Your task to perform on an android device: allow notifications from all sites in the chrome app Image 0: 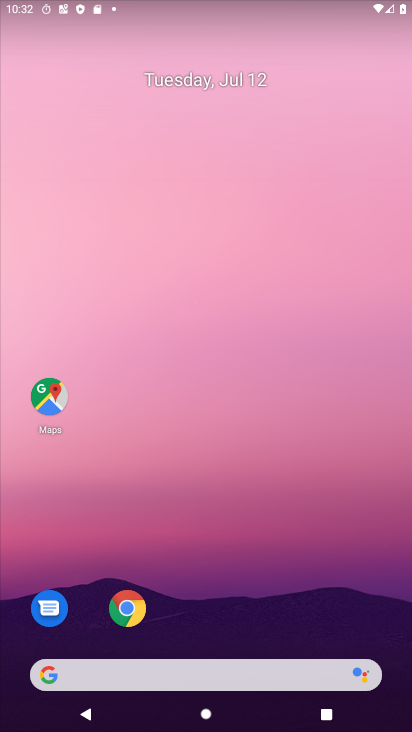
Step 0: click (126, 605)
Your task to perform on an android device: allow notifications from all sites in the chrome app Image 1: 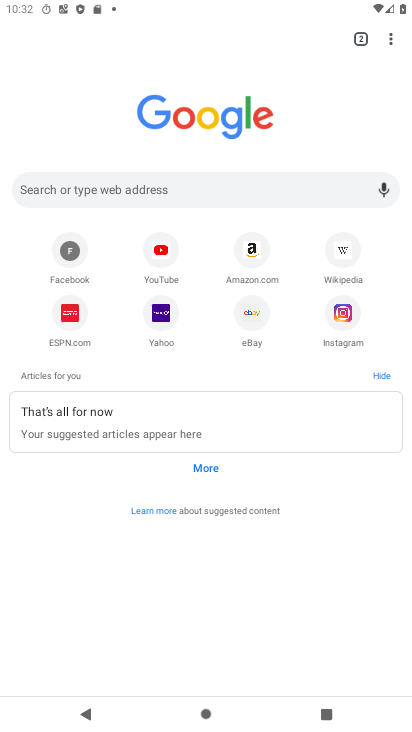
Step 1: click (389, 30)
Your task to perform on an android device: allow notifications from all sites in the chrome app Image 2: 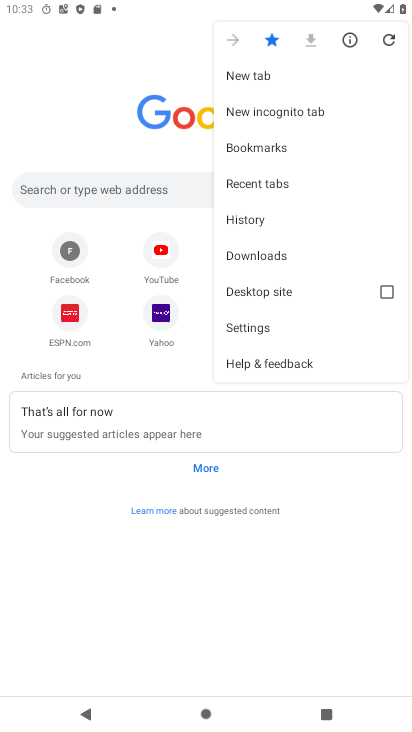
Step 2: click (235, 329)
Your task to perform on an android device: allow notifications from all sites in the chrome app Image 3: 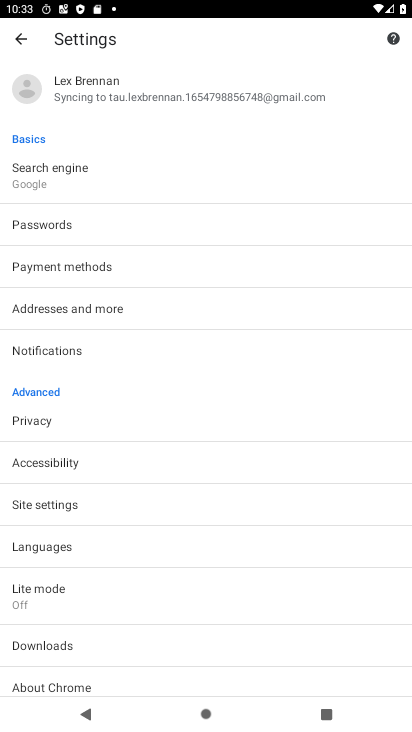
Step 3: click (71, 344)
Your task to perform on an android device: allow notifications from all sites in the chrome app Image 4: 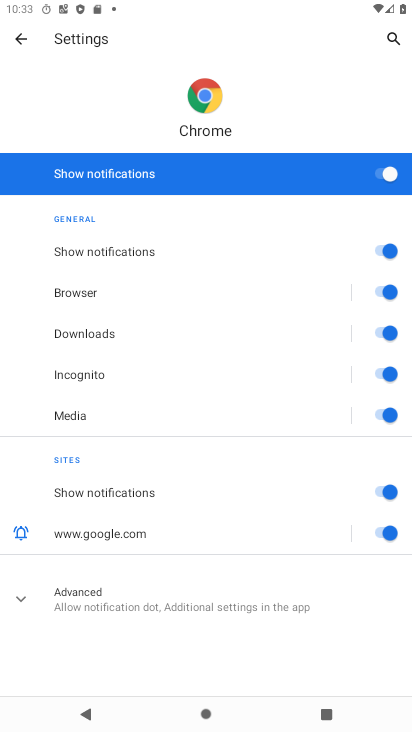
Step 4: task complete